Your task to perform on an android device: When is my next meeting? Image 0: 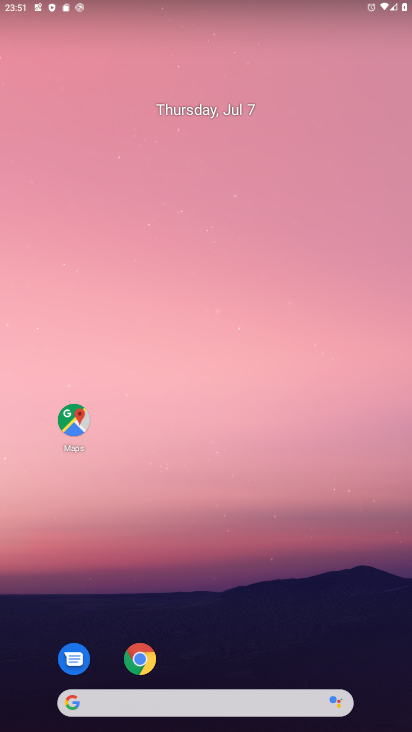
Step 0: click (182, 109)
Your task to perform on an android device: When is my next meeting? Image 1: 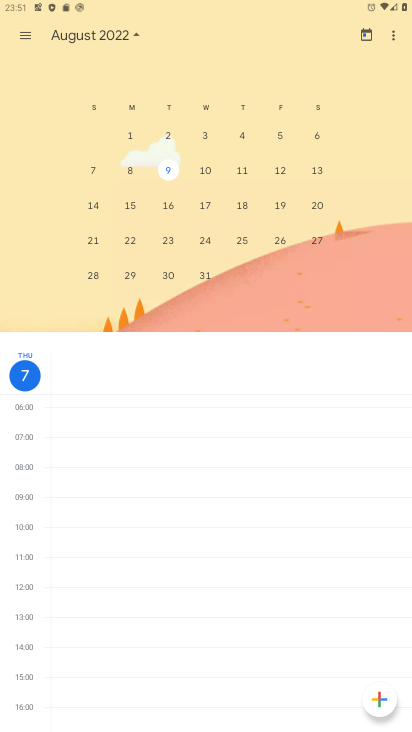
Step 1: task complete